Your task to perform on an android device: Open Chrome and go to settings Image 0: 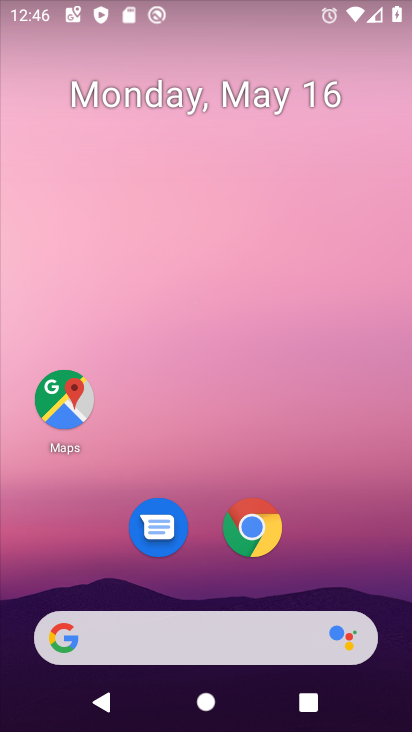
Step 0: click (260, 551)
Your task to perform on an android device: Open Chrome and go to settings Image 1: 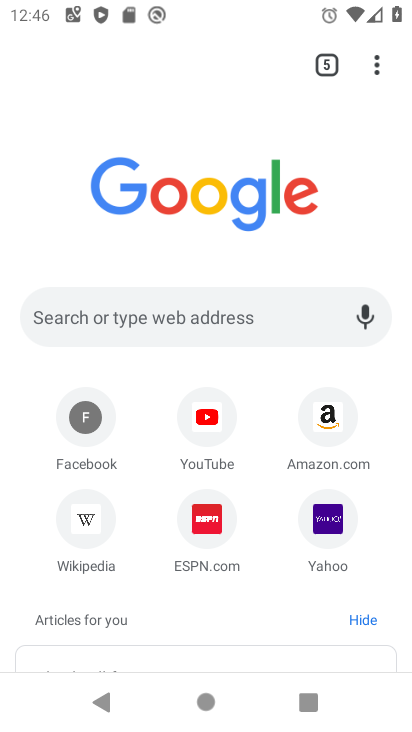
Step 1: click (389, 66)
Your task to perform on an android device: Open Chrome and go to settings Image 2: 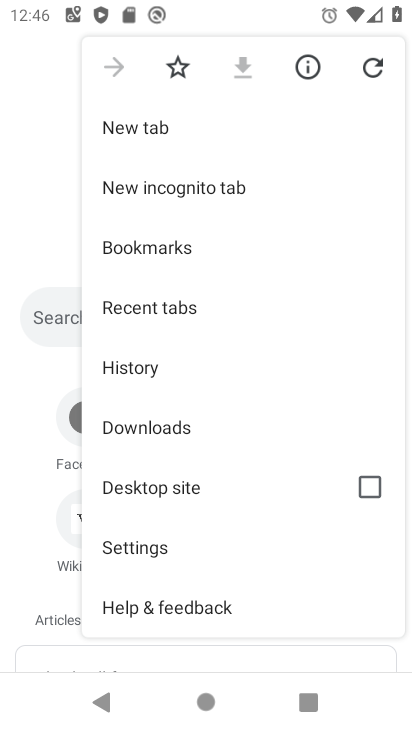
Step 2: click (190, 539)
Your task to perform on an android device: Open Chrome and go to settings Image 3: 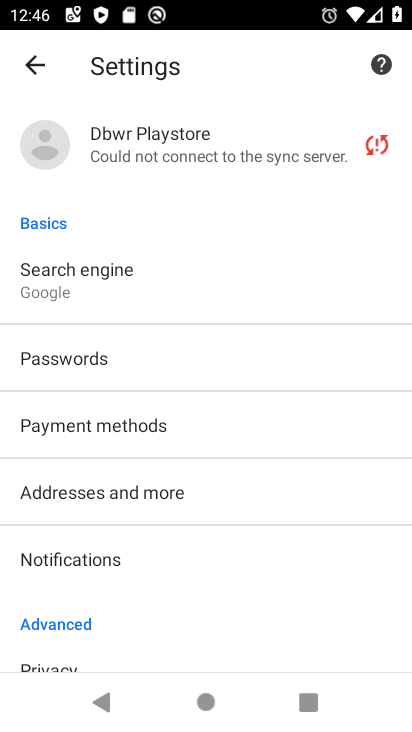
Step 3: task complete